Your task to perform on an android device: Go to settings Image 0: 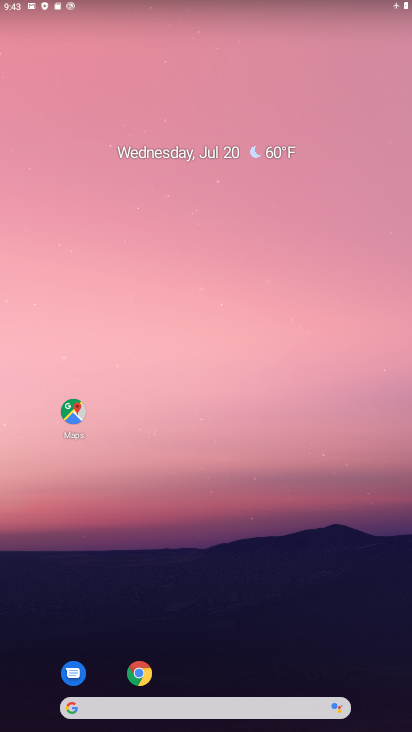
Step 0: drag from (223, 691) to (243, 79)
Your task to perform on an android device: Go to settings Image 1: 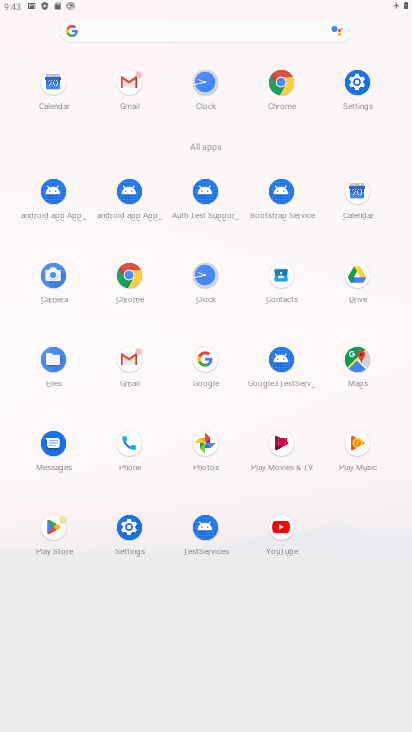
Step 1: click (117, 534)
Your task to perform on an android device: Go to settings Image 2: 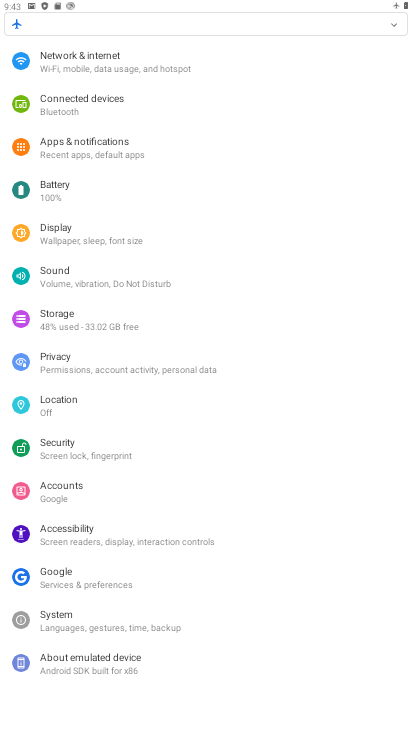
Step 2: task complete